Your task to perform on an android device: Show me popular games on the Play Store Image 0: 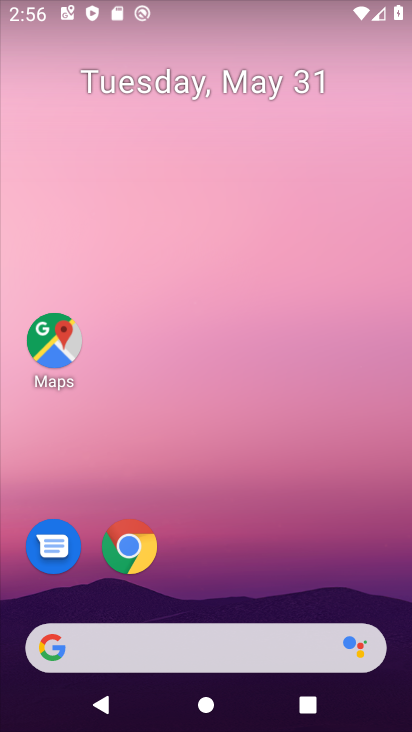
Step 0: drag from (244, 559) to (286, 54)
Your task to perform on an android device: Show me popular games on the Play Store Image 1: 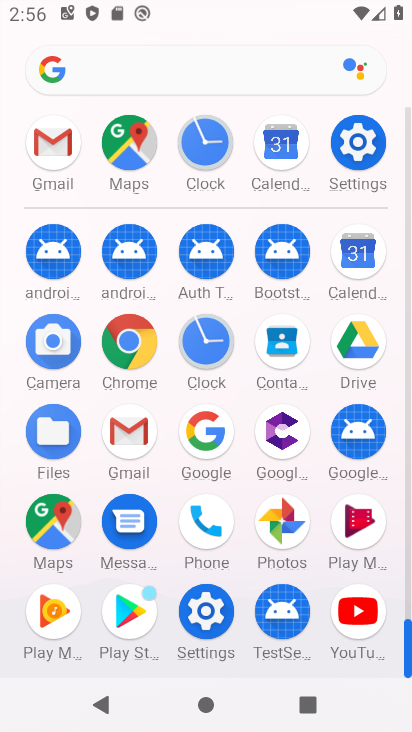
Step 1: click (140, 608)
Your task to perform on an android device: Show me popular games on the Play Store Image 2: 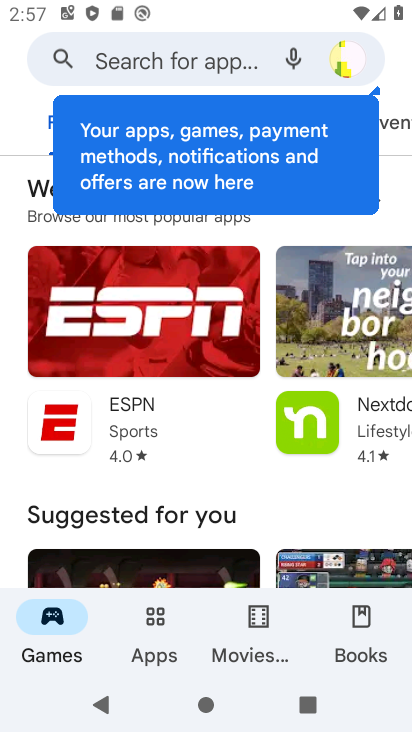
Step 2: drag from (226, 458) to (250, 76)
Your task to perform on an android device: Show me popular games on the Play Store Image 3: 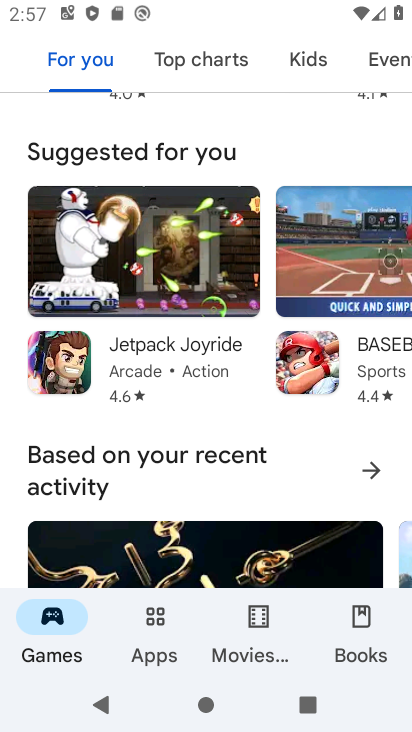
Step 3: drag from (268, 481) to (267, 93)
Your task to perform on an android device: Show me popular games on the Play Store Image 4: 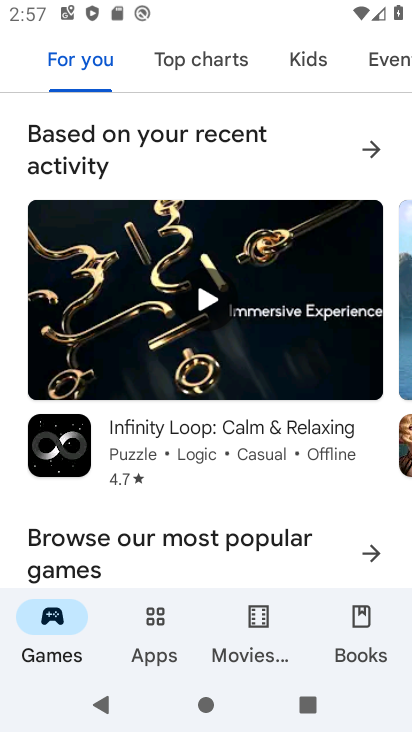
Step 4: click (367, 550)
Your task to perform on an android device: Show me popular games on the Play Store Image 5: 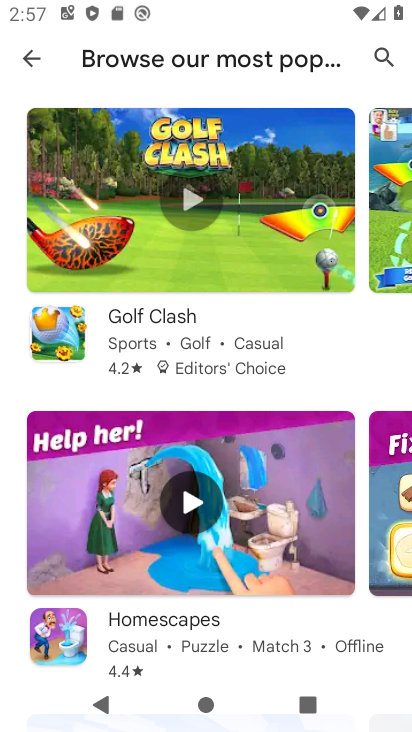
Step 5: task complete